Your task to perform on an android device: Open calendar and show me the second week of next month Image 0: 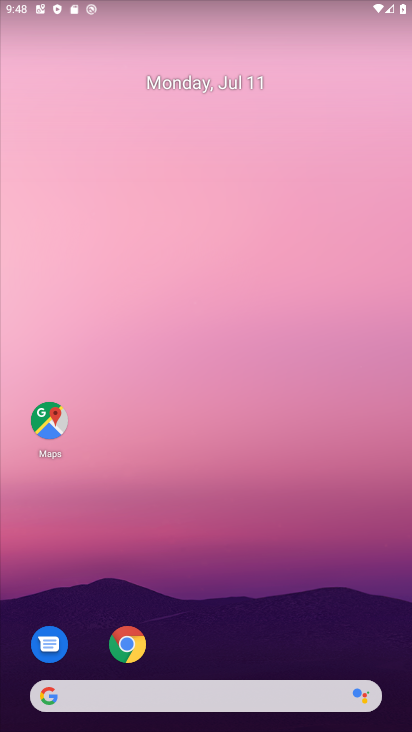
Step 0: press home button
Your task to perform on an android device: Open calendar and show me the second week of next month Image 1: 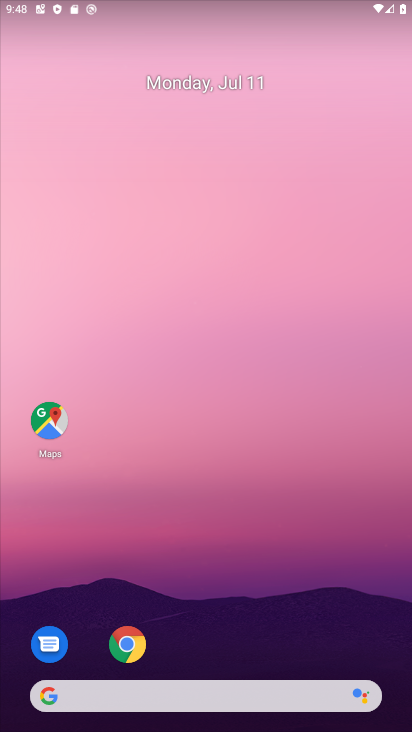
Step 1: drag from (225, 662) to (284, 106)
Your task to perform on an android device: Open calendar and show me the second week of next month Image 2: 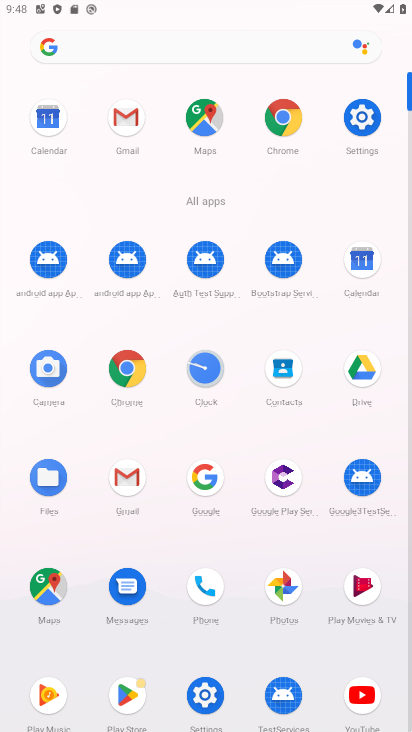
Step 2: click (361, 254)
Your task to perform on an android device: Open calendar and show me the second week of next month Image 3: 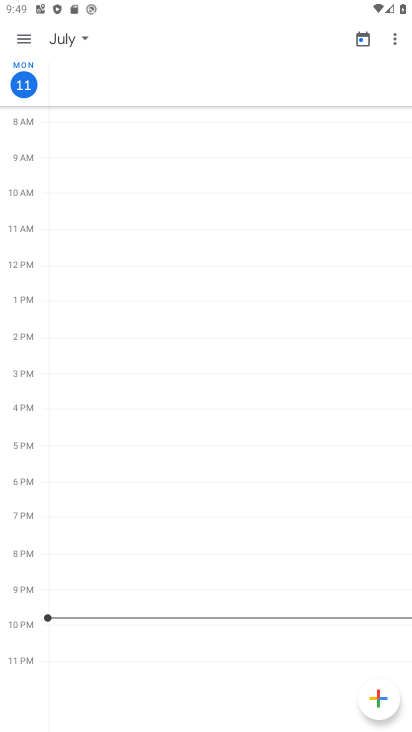
Step 3: click (80, 35)
Your task to perform on an android device: Open calendar and show me the second week of next month Image 4: 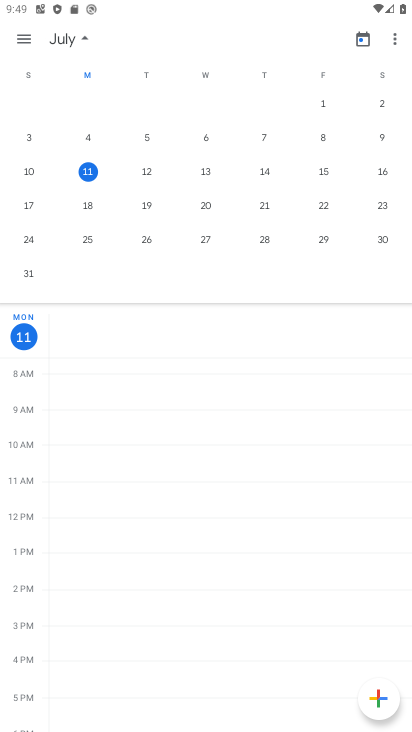
Step 4: drag from (374, 191) to (59, 188)
Your task to perform on an android device: Open calendar and show me the second week of next month Image 5: 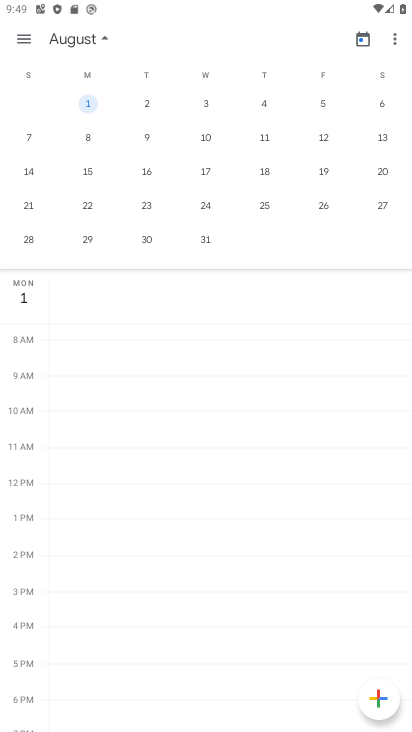
Step 5: click (24, 138)
Your task to perform on an android device: Open calendar and show me the second week of next month Image 6: 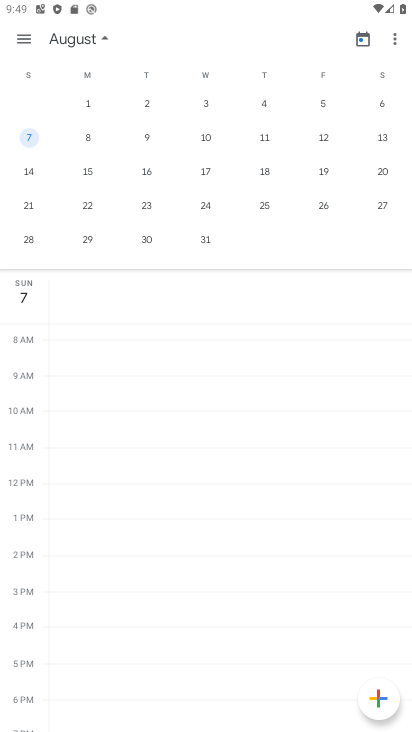
Step 6: click (18, 35)
Your task to perform on an android device: Open calendar and show me the second week of next month Image 7: 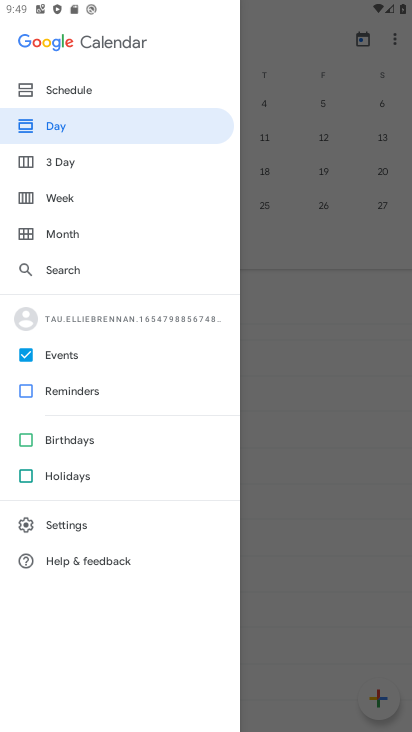
Step 7: click (72, 191)
Your task to perform on an android device: Open calendar and show me the second week of next month Image 8: 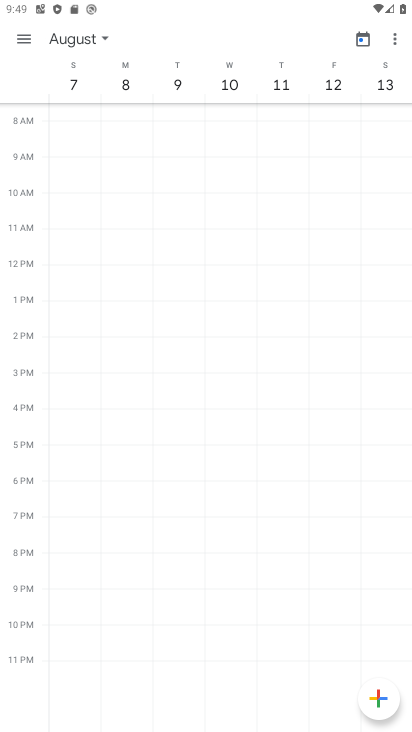
Step 8: task complete